Your task to perform on an android device: Go to CNN.com Image 0: 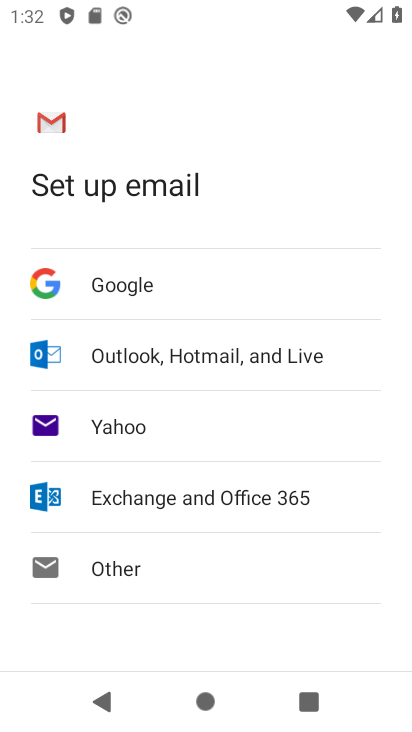
Step 0: press home button
Your task to perform on an android device: Go to CNN.com Image 1: 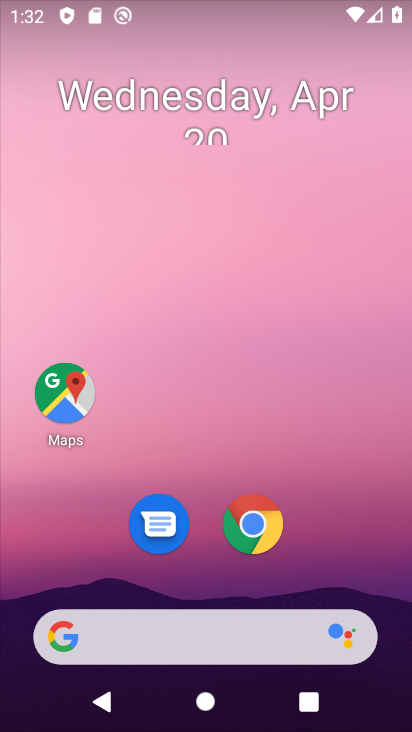
Step 1: click (243, 632)
Your task to perform on an android device: Go to CNN.com Image 2: 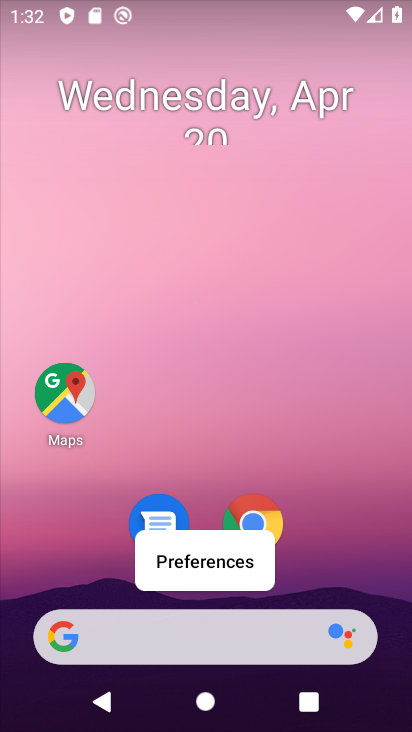
Step 2: click (244, 640)
Your task to perform on an android device: Go to CNN.com Image 3: 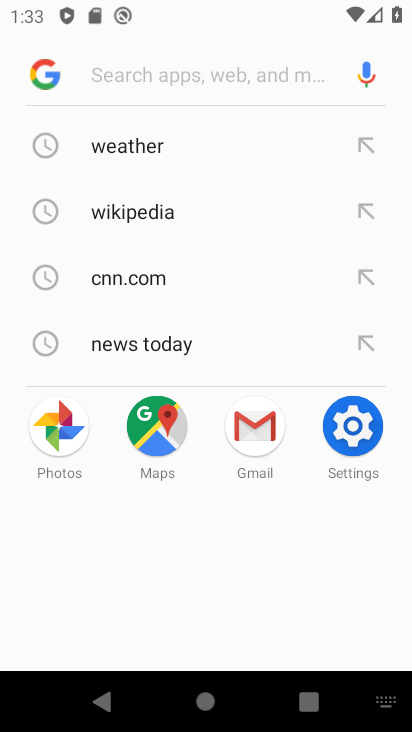
Step 3: type "cn.com"
Your task to perform on an android device: Go to CNN.com Image 4: 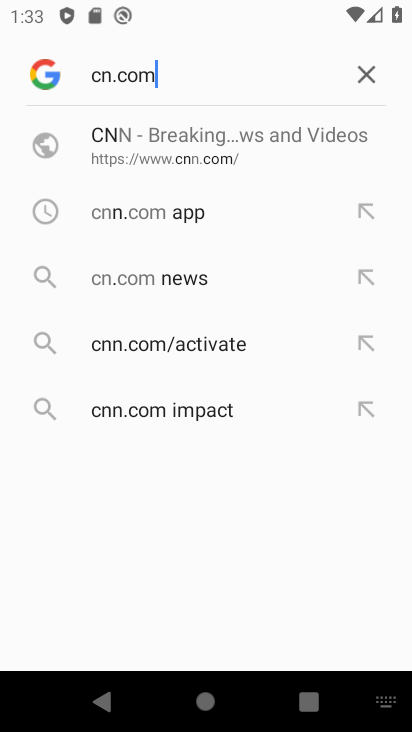
Step 4: click (283, 135)
Your task to perform on an android device: Go to CNN.com Image 5: 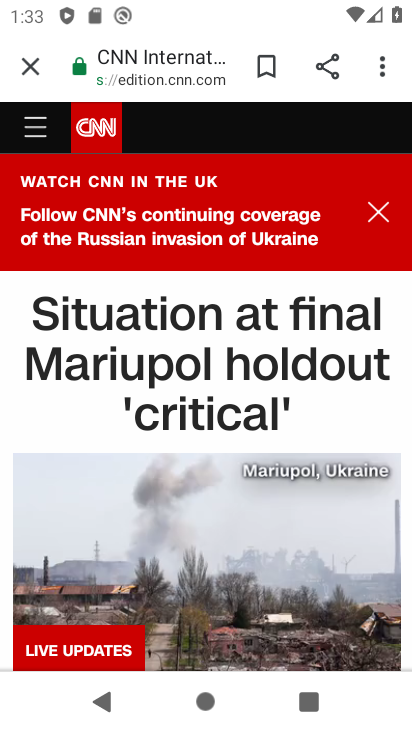
Step 5: task complete